Your task to perform on an android device: stop showing notifications on the lock screen Image 0: 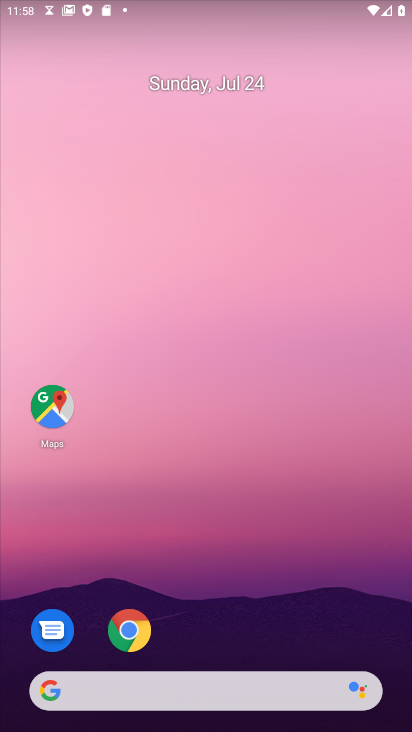
Step 0: press home button
Your task to perform on an android device: stop showing notifications on the lock screen Image 1: 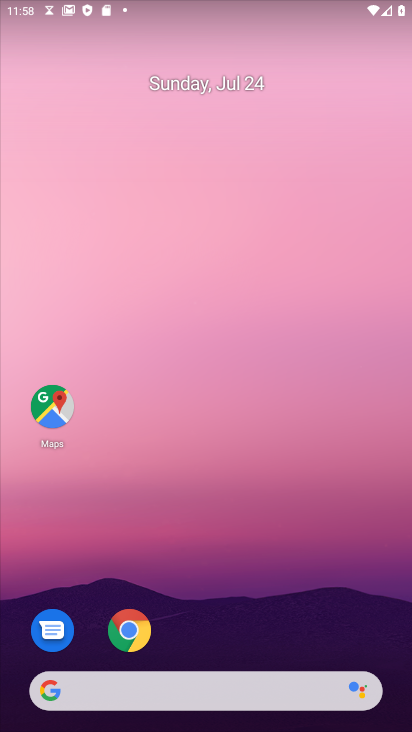
Step 1: click (168, 144)
Your task to perform on an android device: stop showing notifications on the lock screen Image 2: 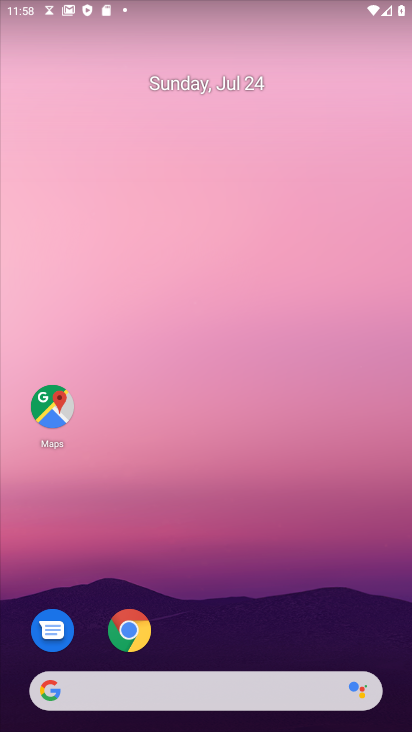
Step 2: drag from (280, 629) to (301, 0)
Your task to perform on an android device: stop showing notifications on the lock screen Image 3: 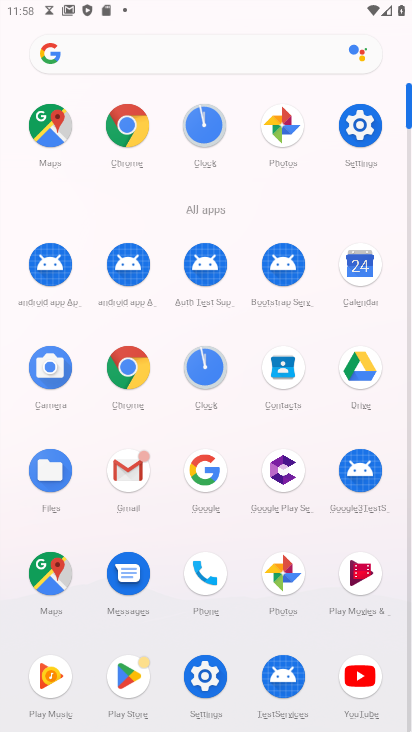
Step 3: click (362, 105)
Your task to perform on an android device: stop showing notifications on the lock screen Image 4: 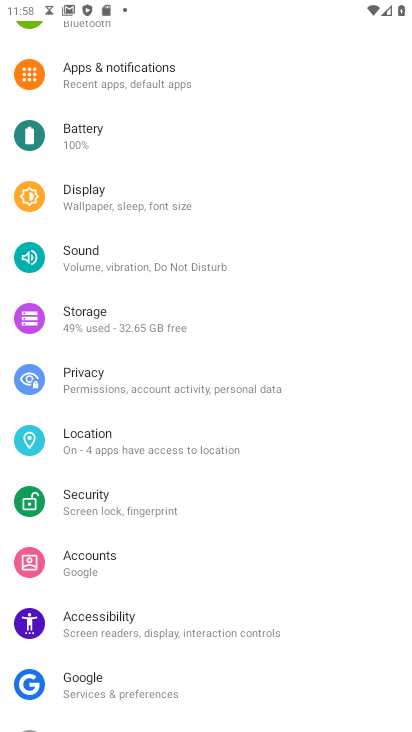
Step 4: click (105, 72)
Your task to perform on an android device: stop showing notifications on the lock screen Image 5: 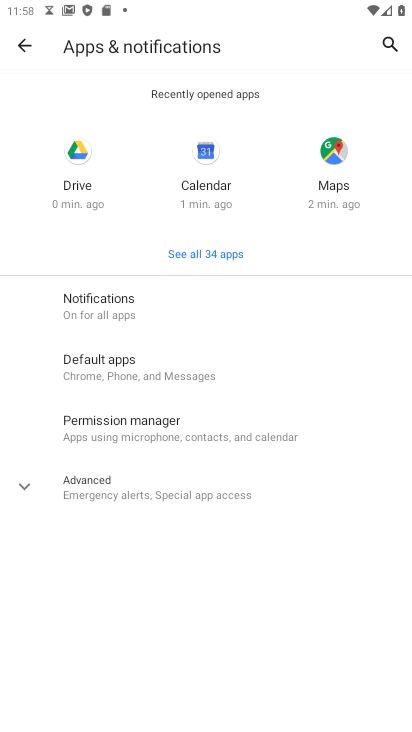
Step 5: click (108, 317)
Your task to perform on an android device: stop showing notifications on the lock screen Image 6: 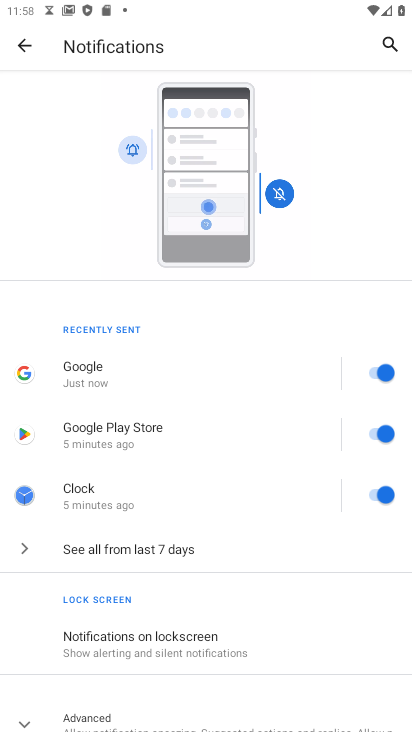
Step 6: click (100, 645)
Your task to perform on an android device: stop showing notifications on the lock screen Image 7: 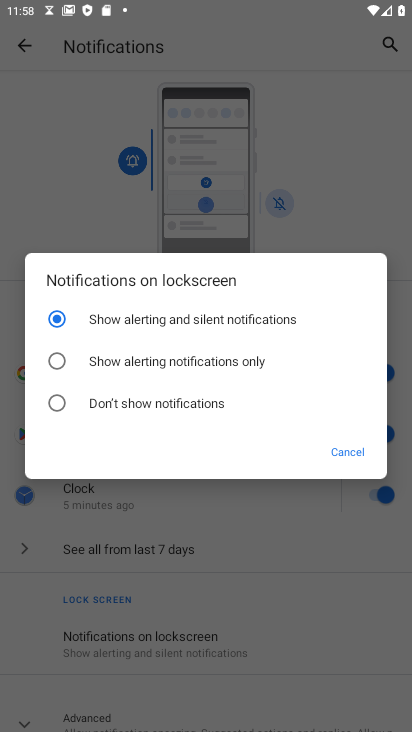
Step 7: click (63, 409)
Your task to perform on an android device: stop showing notifications on the lock screen Image 8: 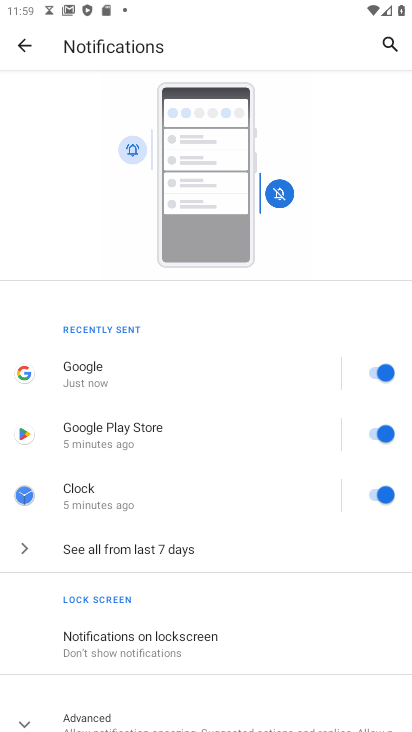
Step 8: task complete